Your task to perform on an android device: Open Google Maps Image 0: 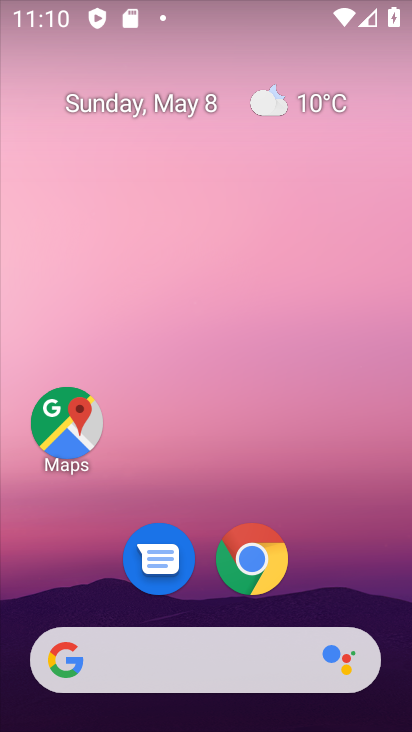
Step 0: click (61, 438)
Your task to perform on an android device: Open Google Maps Image 1: 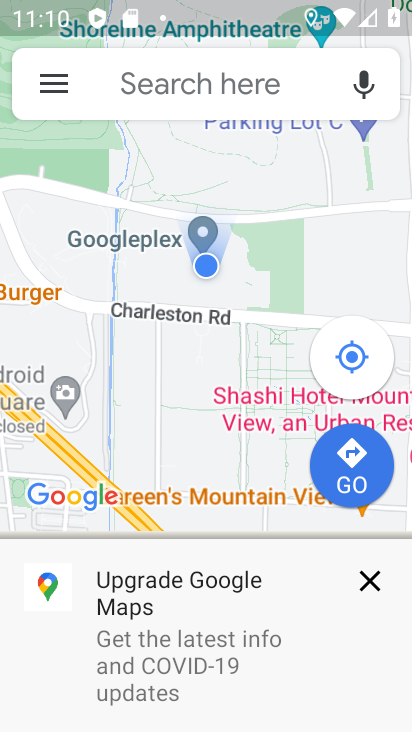
Step 1: click (377, 579)
Your task to perform on an android device: Open Google Maps Image 2: 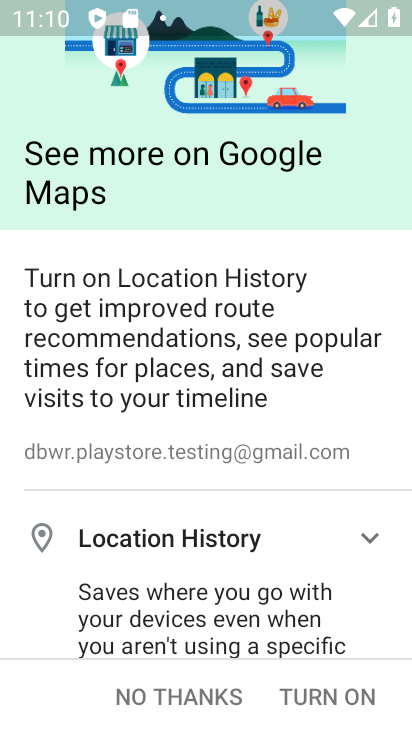
Step 2: click (212, 695)
Your task to perform on an android device: Open Google Maps Image 3: 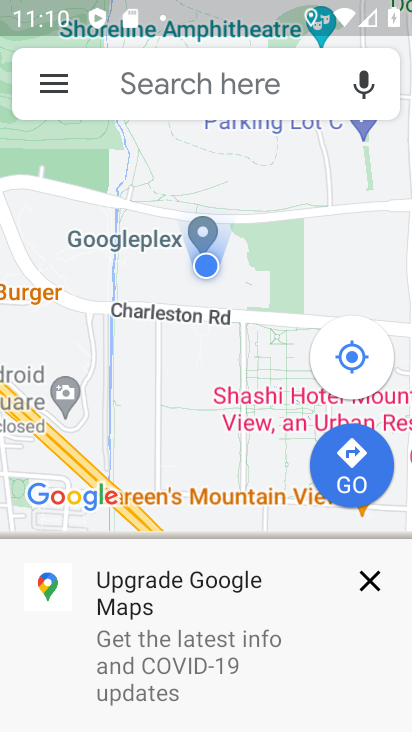
Step 3: task complete